Your task to perform on an android device: show emergency info Image 0: 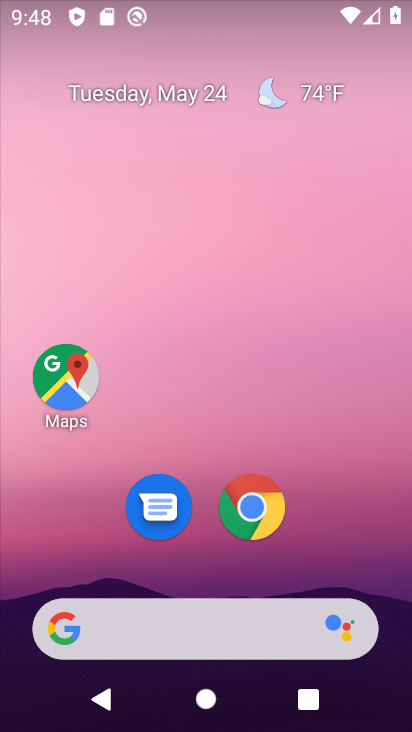
Step 0: drag from (236, 716) to (193, 130)
Your task to perform on an android device: show emergency info Image 1: 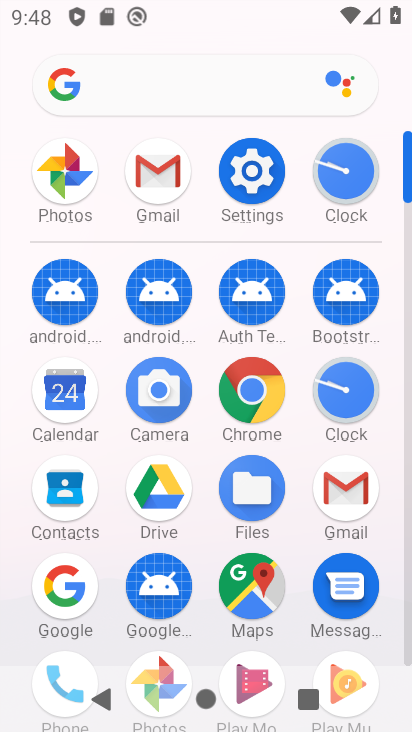
Step 1: click (256, 174)
Your task to perform on an android device: show emergency info Image 2: 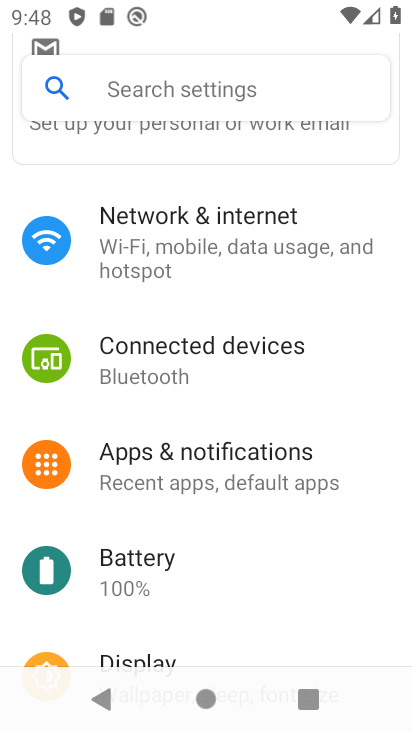
Step 2: drag from (179, 626) to (193, 176)
Your task to perform on an android device: show emergency info Image 3: 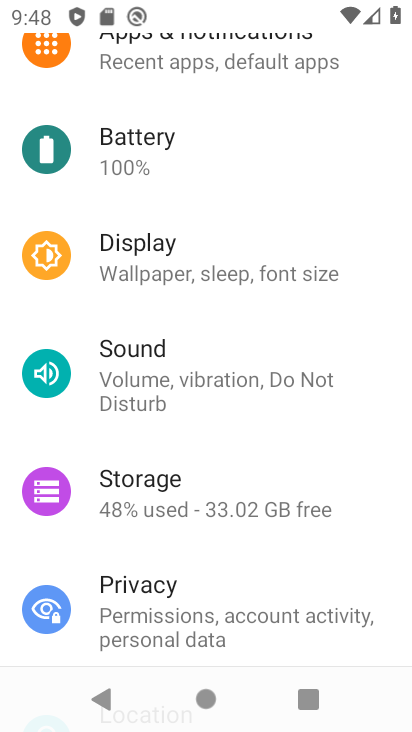
Step 3: drag from (216, 574) to (227, 178)
Your task to perform on an android device: show emergency info Image 4: 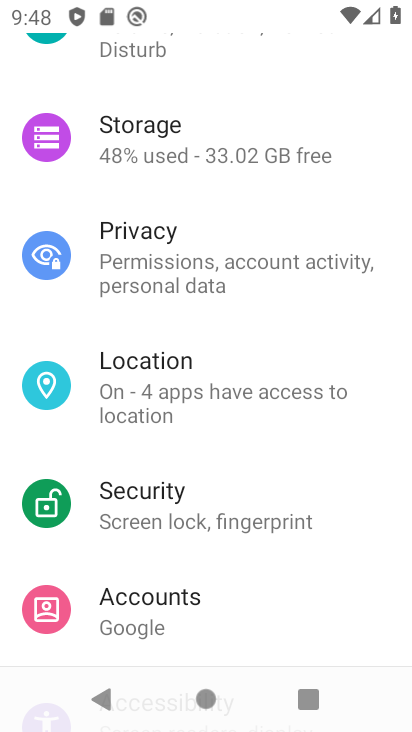
Step 4: drag from (202, 634) to (237, 187)
Your task to perform on an android device: show emergency info Image 5: 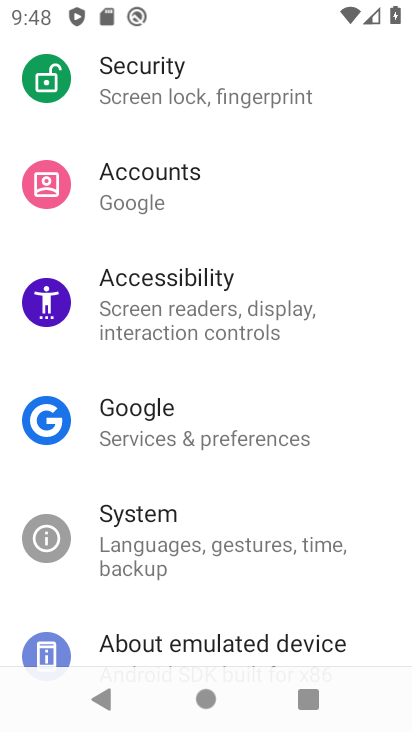
Step 5: drag from (197, 562) to (221, 188)
Your task to perform on an android device: show emergency info Image 6: 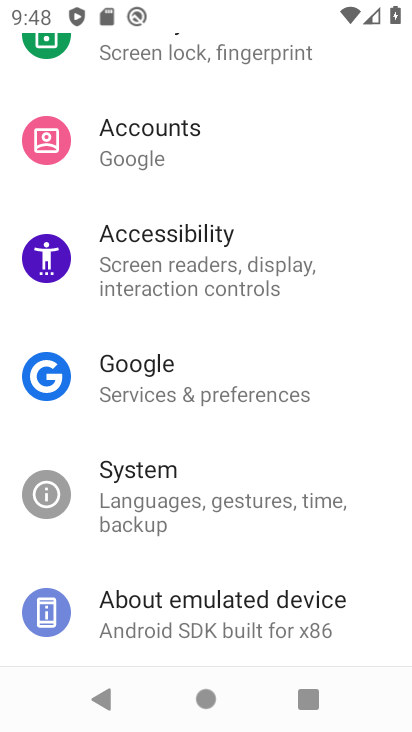
Step 6: click (190, 616)
Your task to perform on an android device: show emergency info Image 7: 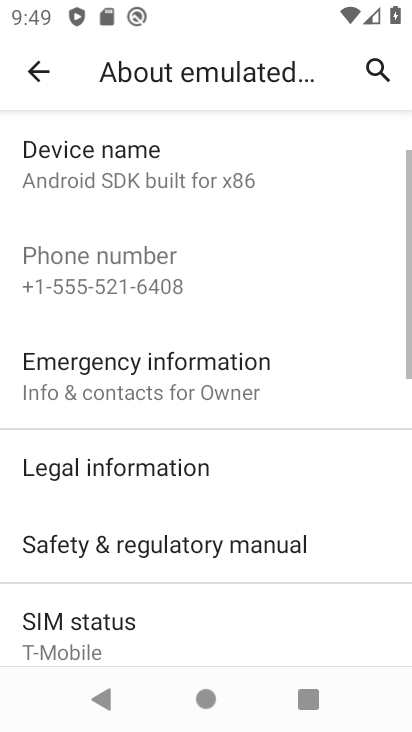
Step 7: click (143, 375)
Your task to perform on an android device: show emergency info Image 8: 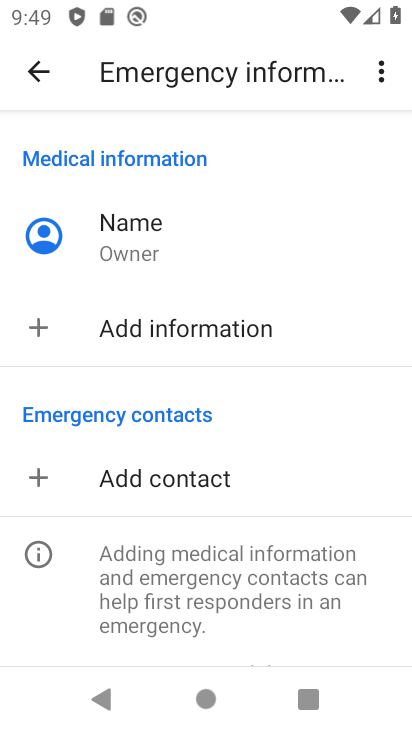
Step 8: task complete